Your task to perform on an android device: allow notifications from all sites in the chrome app Image 0: 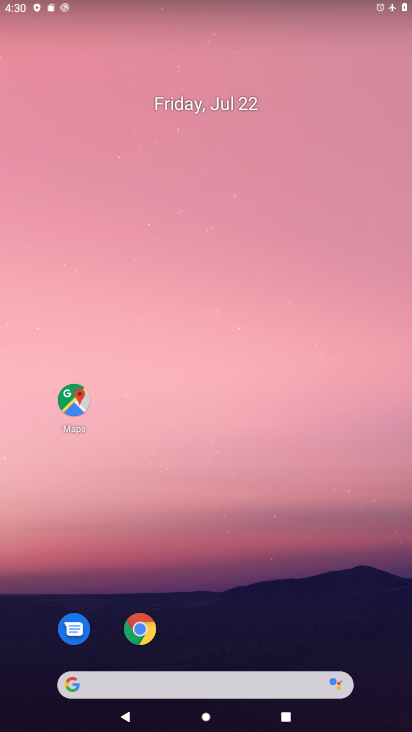
Step 0: drag from (286, 528) to (278, 15)
Your task to perform on an android device: allow notifications from all sites in the chrome app Image 1: 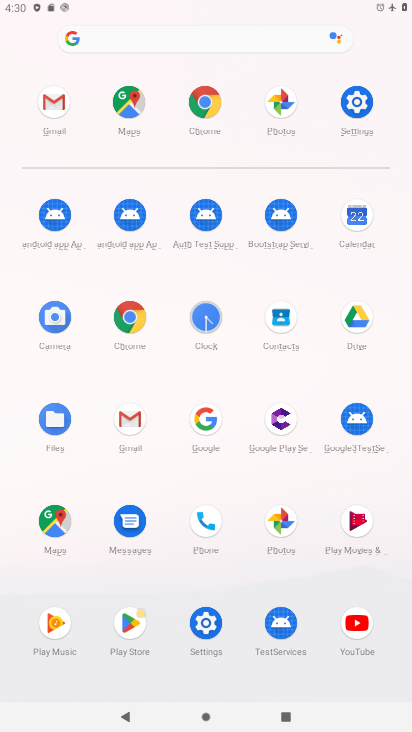
Step 1: click (212, 103)
Your task to perform on an android device: allow notifications from all sites in the chrome app Image 2: 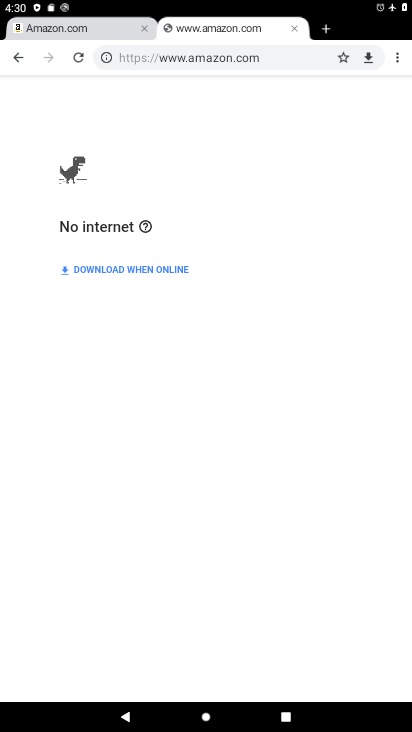
Step 2: drag from (390, 59) to (297, 390)
Your task to perform on an android device: allow notifications from all sites in the chrome app Image 3: 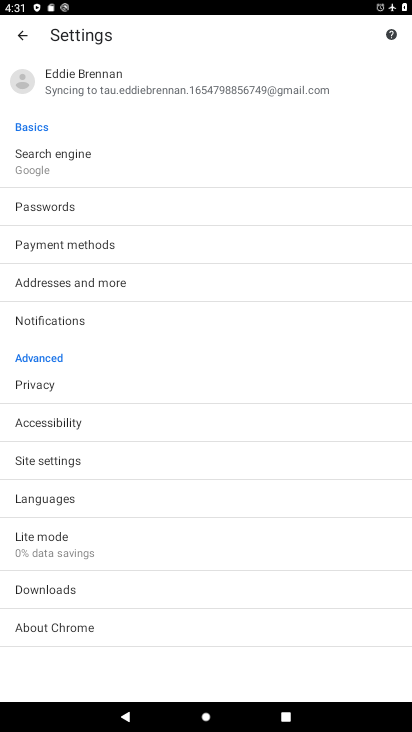
Step 3: click (64, 310)
Your task to perform on an android device: allow notifications from all sites in the chrome app Image 4: 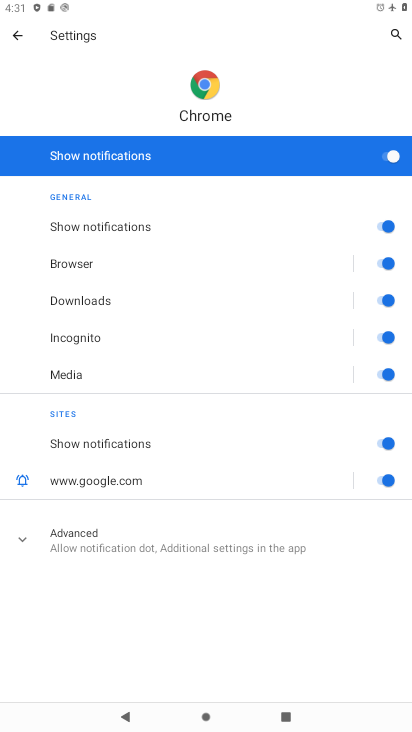
Step 4: task complete